Your task to perform on an android device: toggle data saver in the chrome app Image 0: 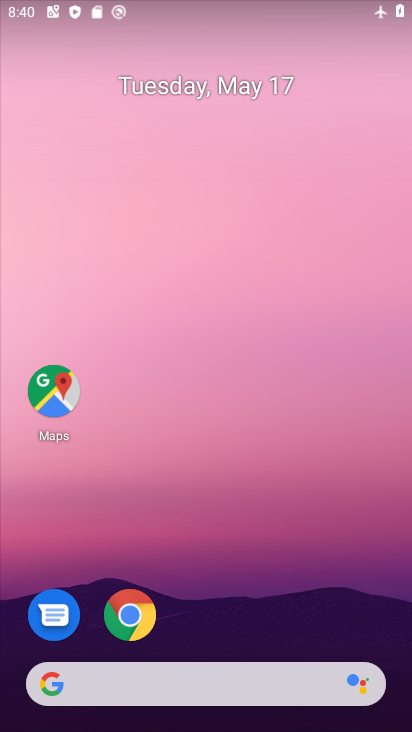
Step 0: drag from (223, 621) to (229, 284)
Your task to perform on an android device: toggle data saver in the chrome app Image 1: 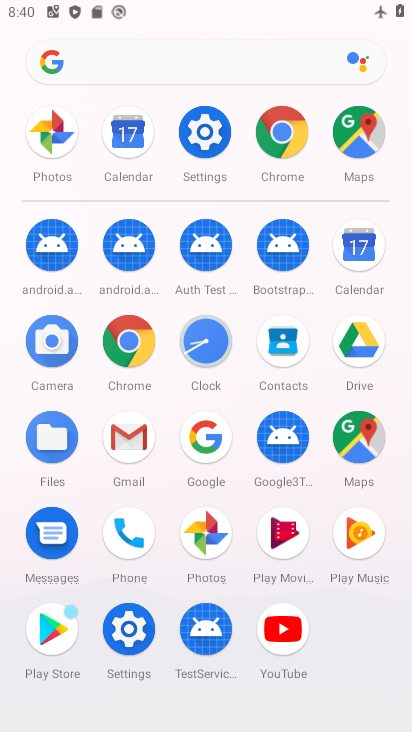
Step 1: click (289, 131)
Your task to perform on an android device: toggle data saver in the chrome app Image 2: 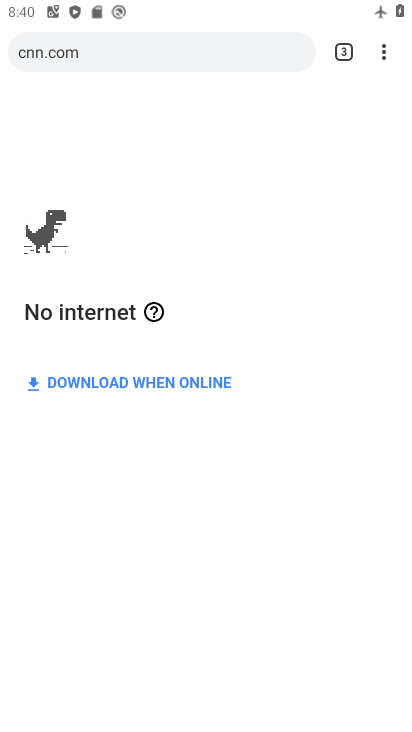
Step 2: click (389, 44)
Your task to perform on an android device: toggle data saver in the chrome app Image 3: 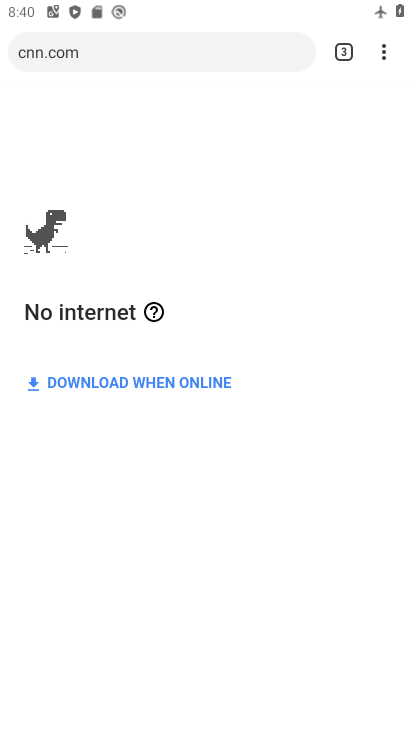
Step 3: click (383, 52)
Your task to perform on an android device: toggle data saver in the chrome app Image 4: 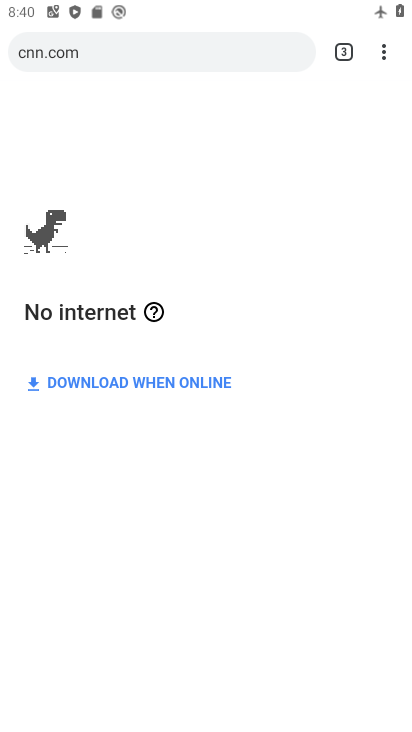
Step 4: click (383, 52)
Your task to perform on an android device: toggle data saver in the chrome app Image 5: 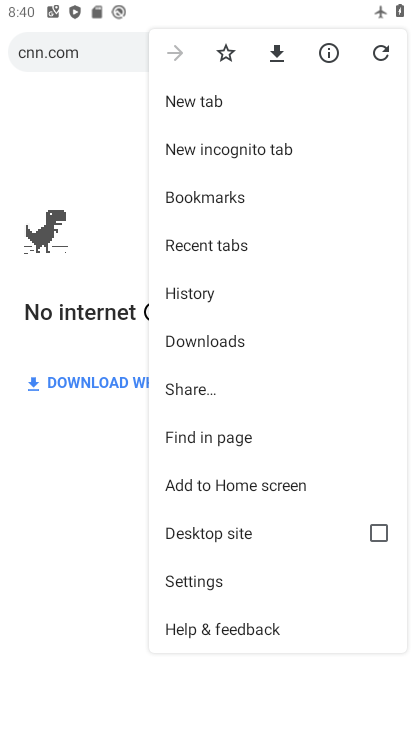
Step 5: drag from (271, 535) to (276, 293)
Your task to perform on an android device: toggle data saver in the chrome app Image 6: 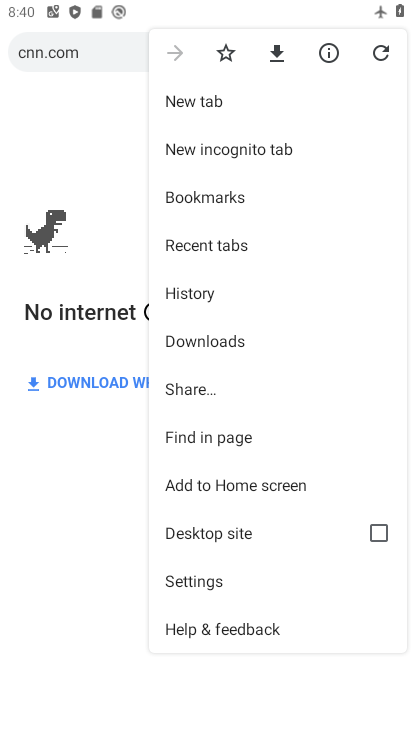
Step 6: click (197, 577)
Your task to perform on an android device: toggle data saver in the chrome app Image 7: 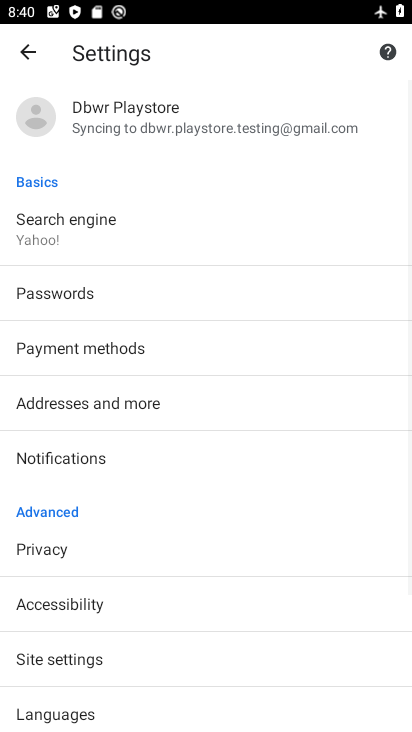
Step 7: drag from (183, 649) to (216, 209)
Your task to perform on an android device: toggle data saver in the chrome app Image 8: 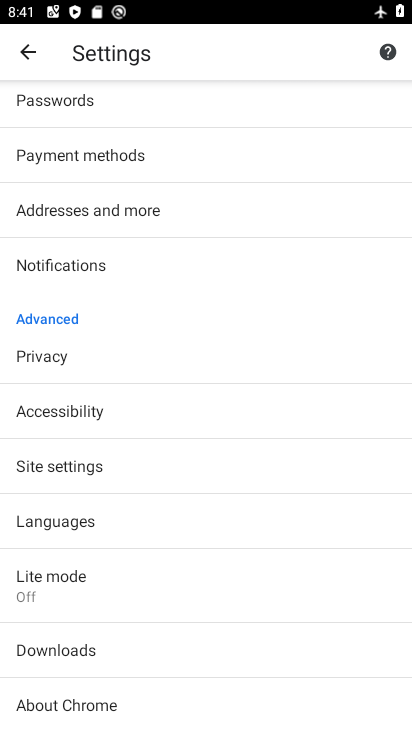
Step 8: click (86, 584)
Your task to perform on an android device: toggle data saver in the chrome app Image 9: 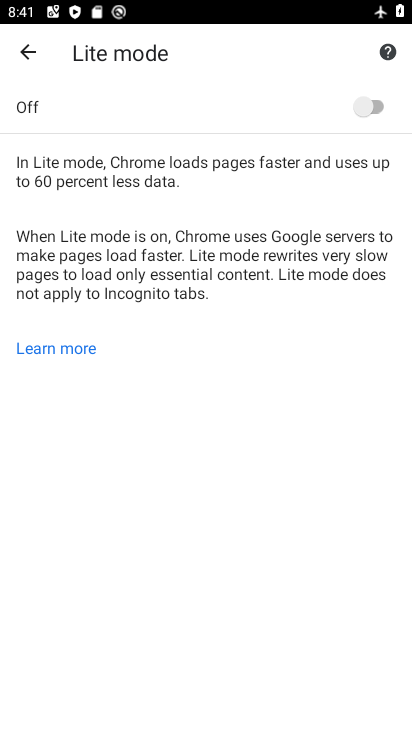
Step 9: click (369, 109)
Your task to perform on an android device: toggle data saver in the chrome app Image 10: 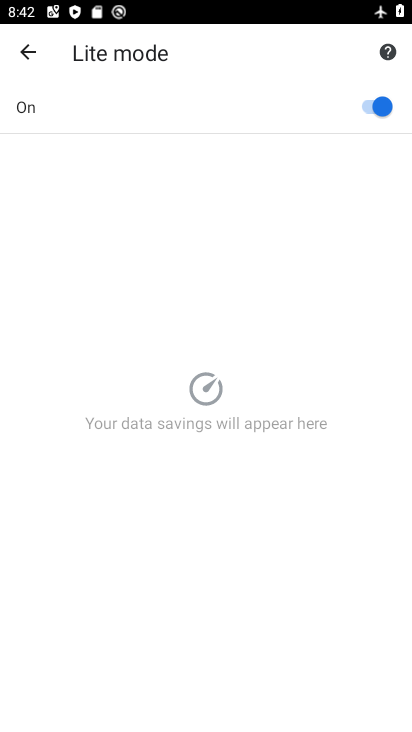
Step 10: task complete